Your task to perform on an android device: open app "Expedia: Hotels, Flights & Car" (install if not already installed), go to login, and select forgot password Image 0: 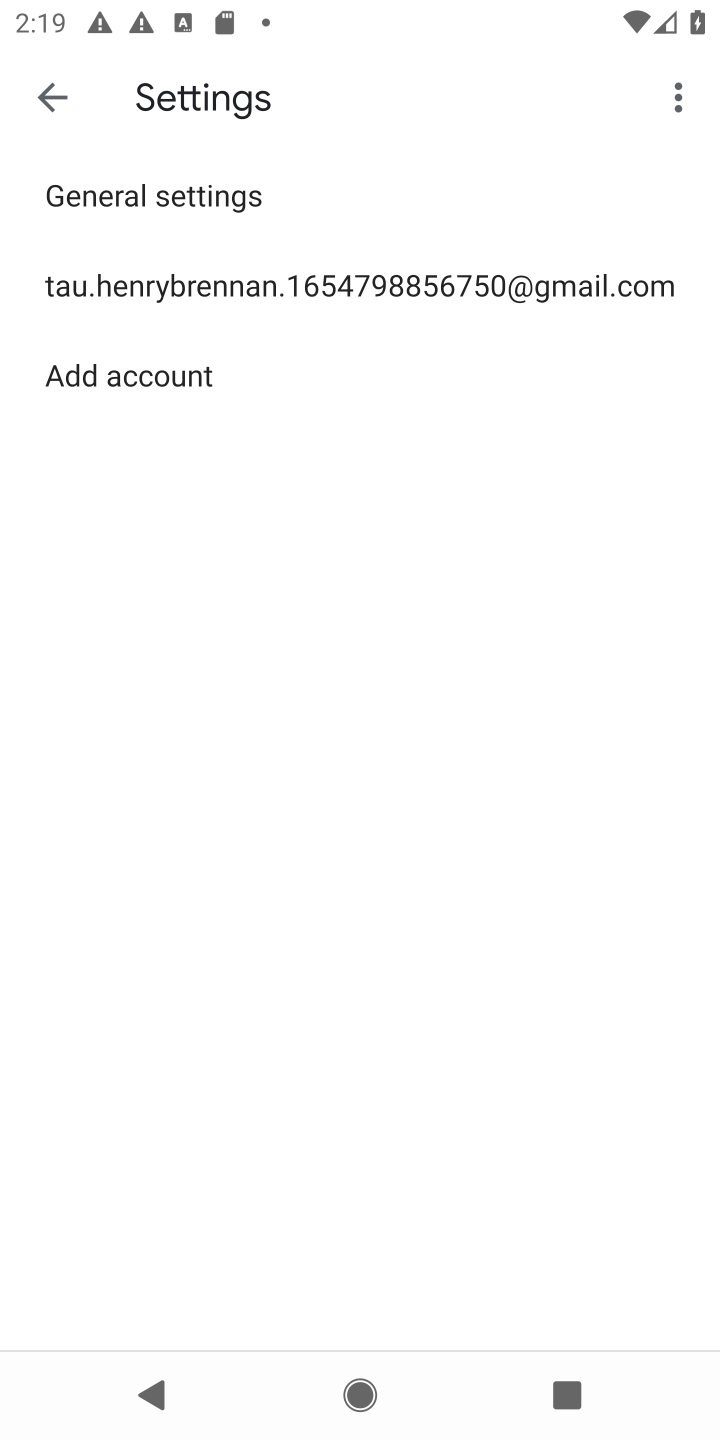
Step 0: press home button
Your task to perform on an android device: open app "Expedia: Hotels, Flights & Car" (install if not already installed), go to login, and select forgot password Image 1: 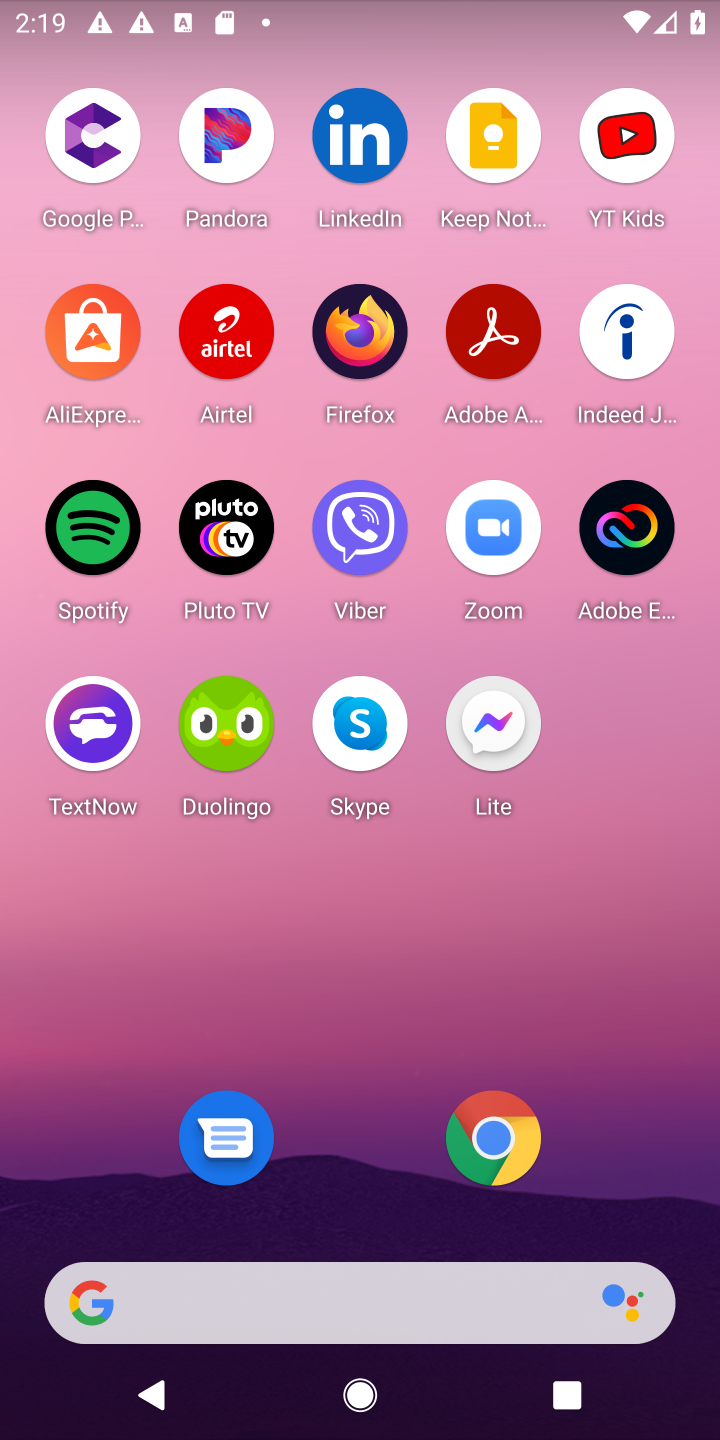
Step 1: press home button
Your task to perform on an android device: open app "Expedia: Hotels, Flights & Car" (install if not already installed), go to login, and select forgot password Image 2: 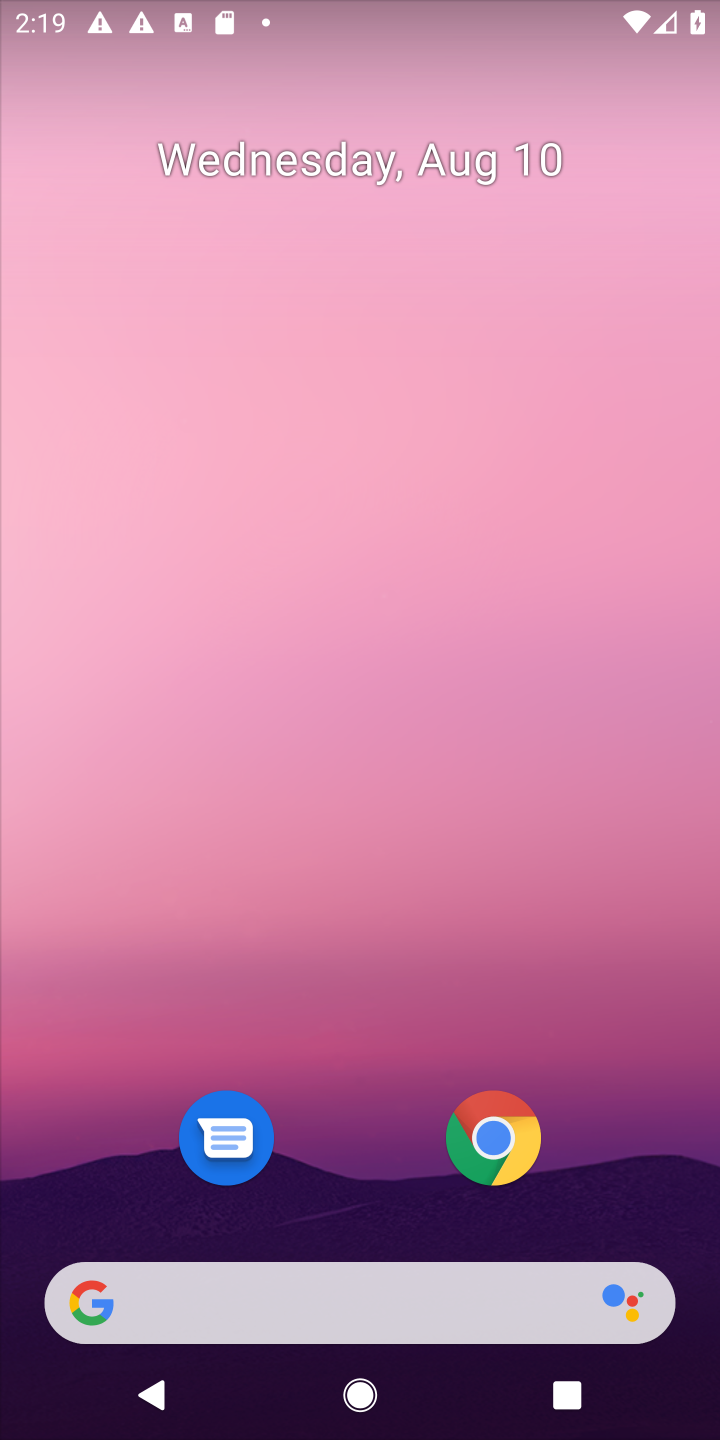
Step 2: drag from (617, 953) to (636, 56)
Your task to perform on an android device: open app "Expedia: Hotels, Flights & Car" (install if not already installed), go to login, and select forgot password Image 3: 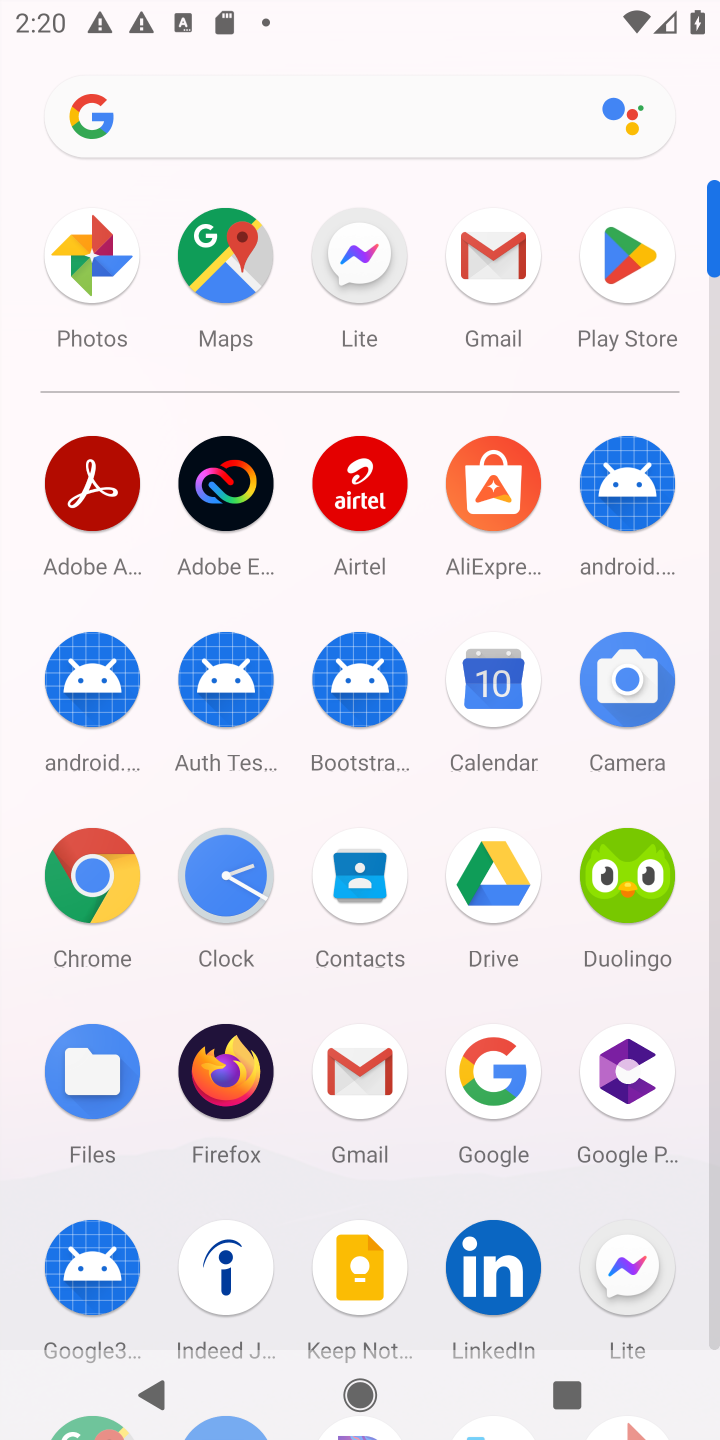
Step 3: click (620, 248)
Your task to perform on an android device: open app "Expedia: Hotels, Flights & Car" (install if not already installed), go to login, and select forgot password Image 4: 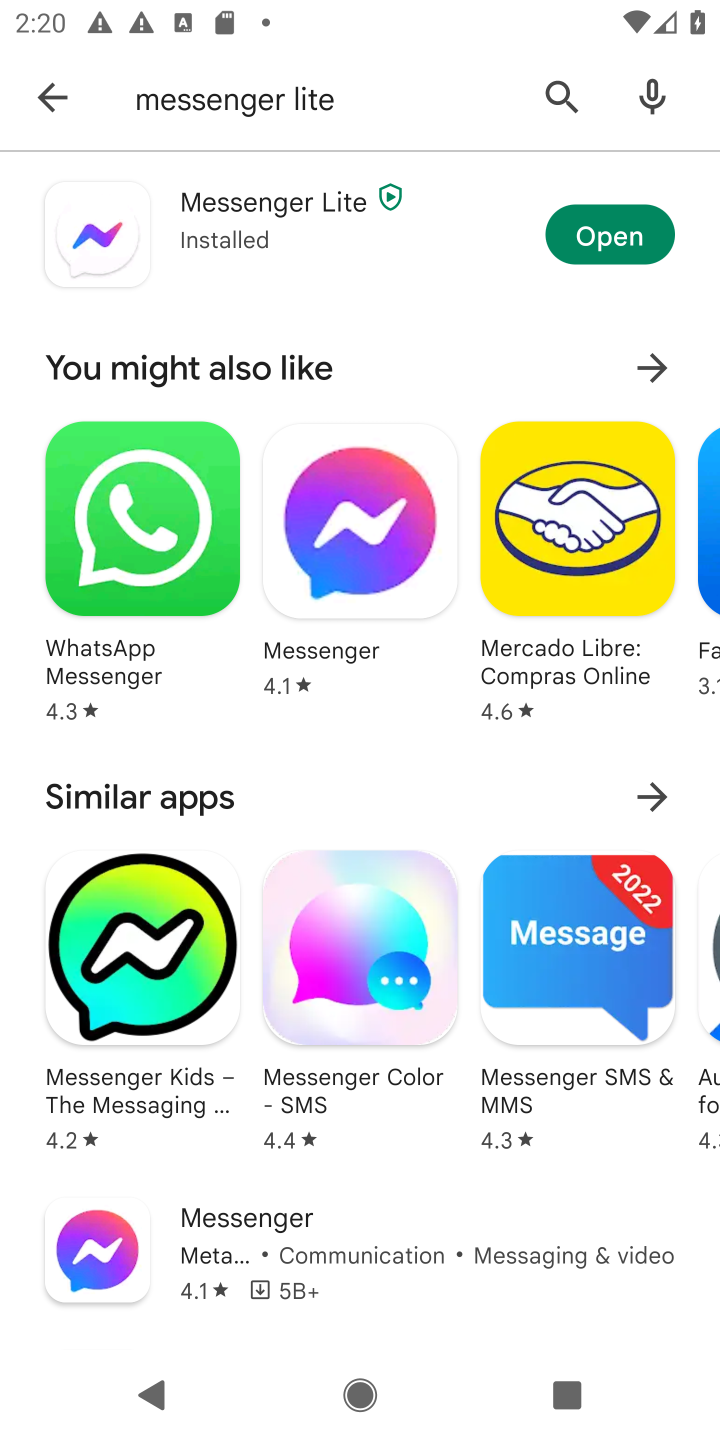
Step 4: click (564, 98)
Your task to perform on an android device: open app "Expedia: Hotels, Flights & Car" (install if not already installed), go to login, and select forgot password Image 5: 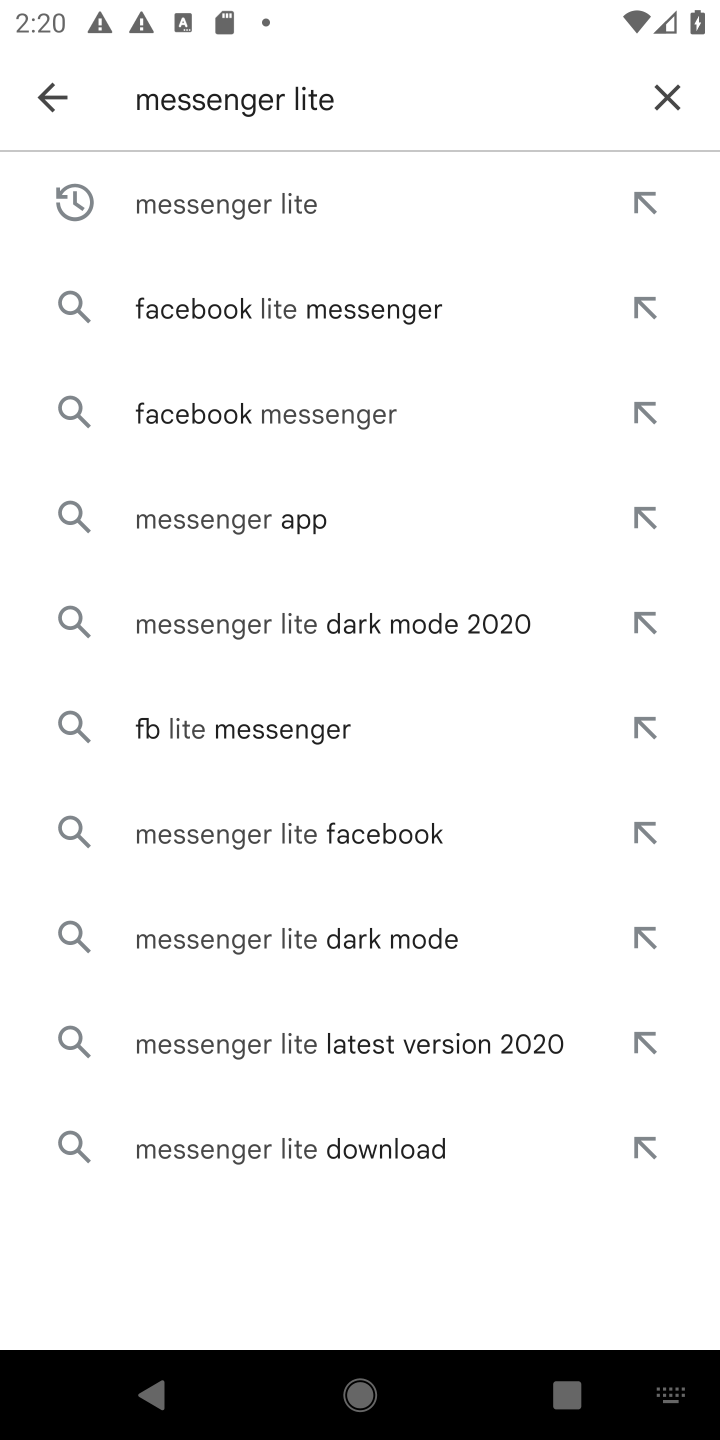
Step 5: click (679, 98)
Your task to perform on an android device: open app "Expedia: Hotels, Flights & Car" (install if not already installed), go to login, and select forgot password Image 6: 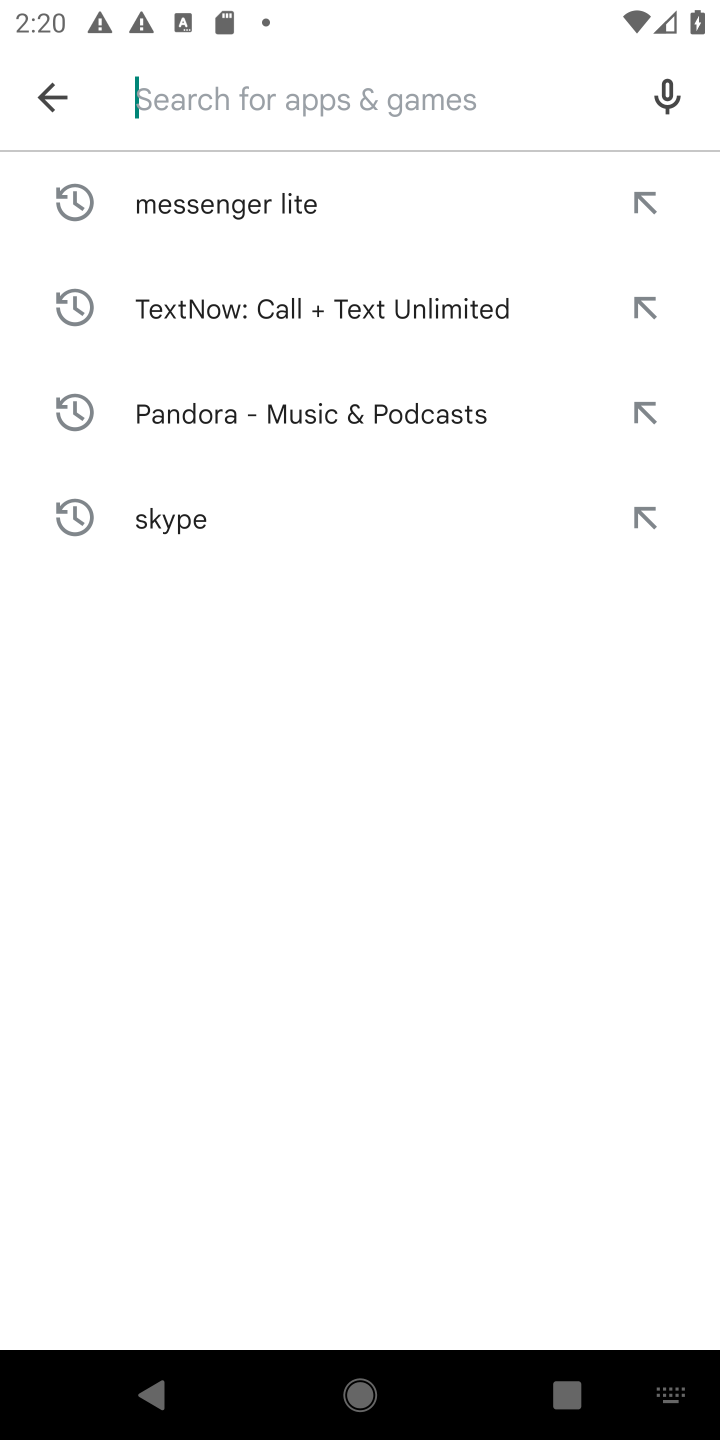
Step 6: press enter
Your task to perform on an android device: open app "Expedia: Hotels, Flights & Car" (install if not already installed), go to login, and select forgot password Image 7: 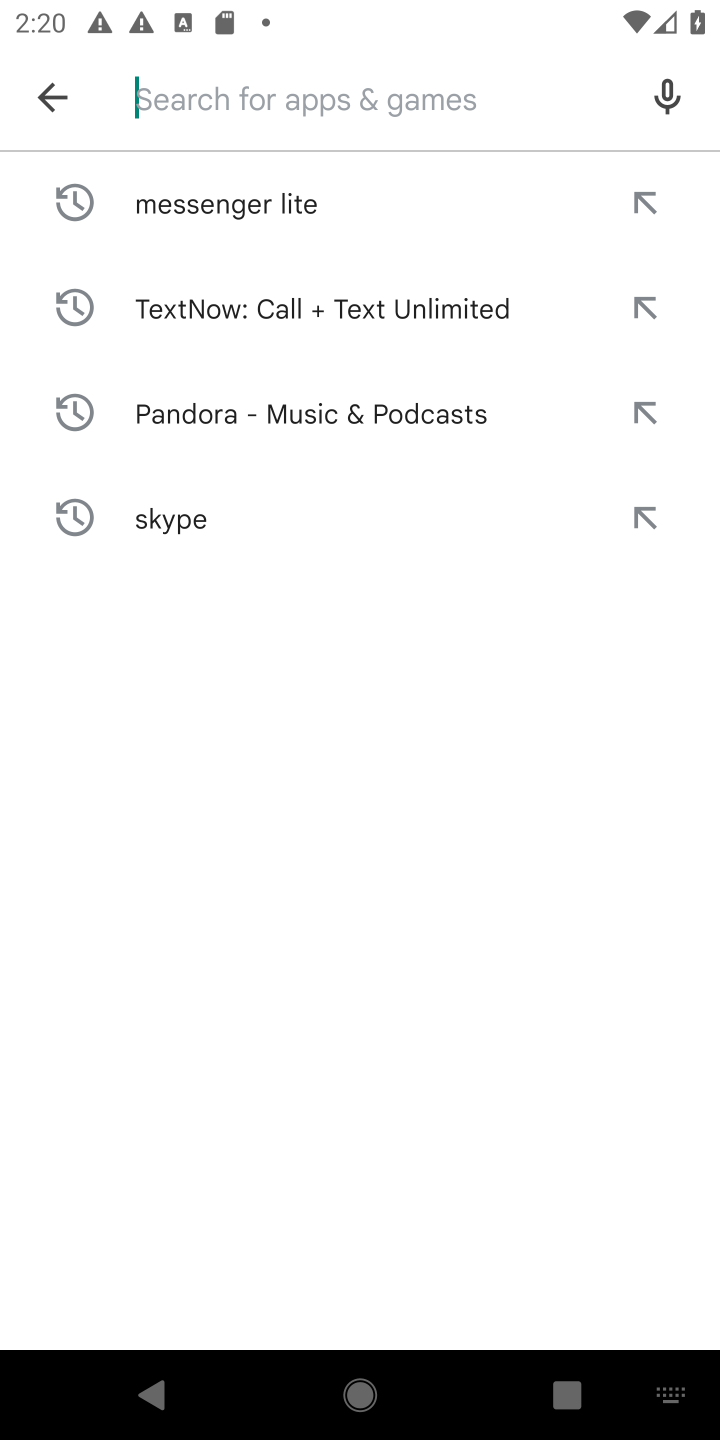
Step 7: type "Expedia: Hotels, Flights & Car"
Your task to perform on an android device: open app "Expedia: Hotels, Flights & Car" (install if not already installed), go to login, and select forgot password Image 8: 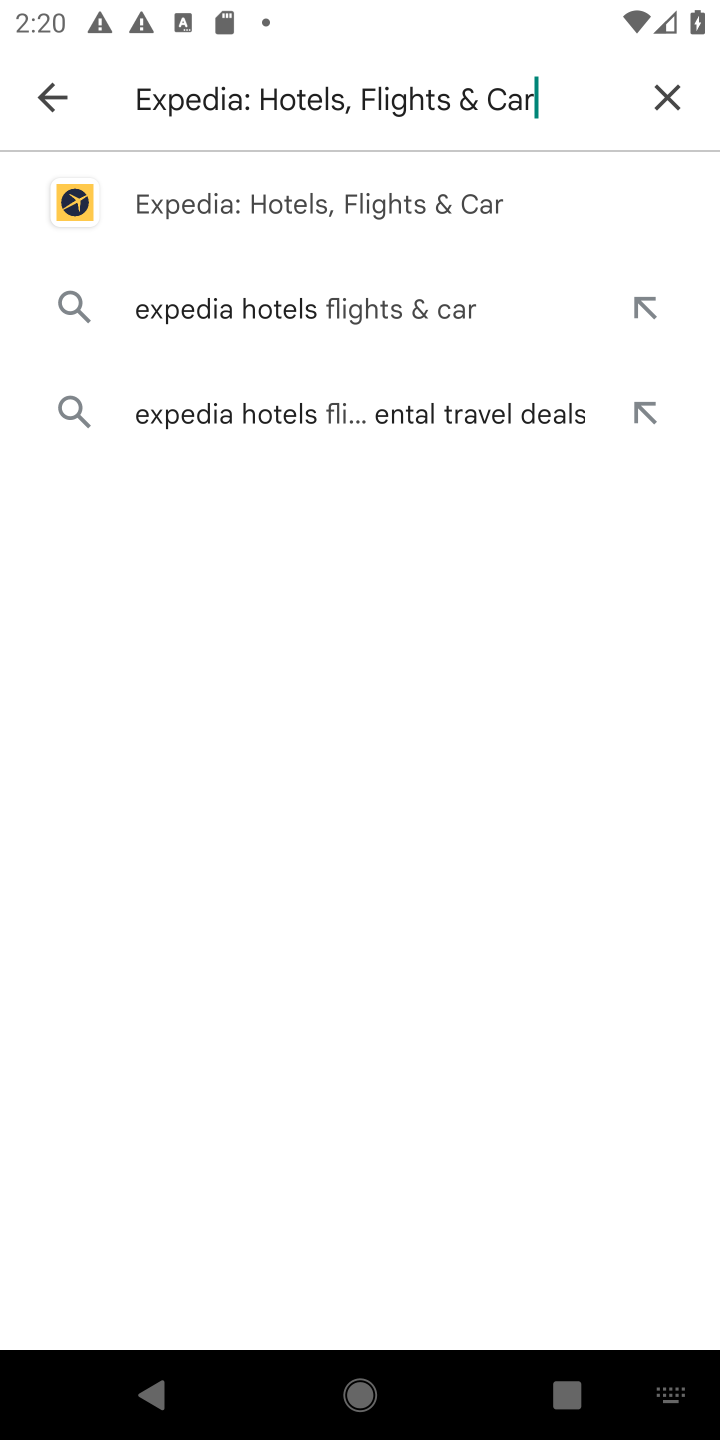
Step 8: click (426, 207)
Your task to perform on an android device: open app "Expedia: Hotels, Flights & Car" (install if not already installed), go to login, and select forgot password Image 9: 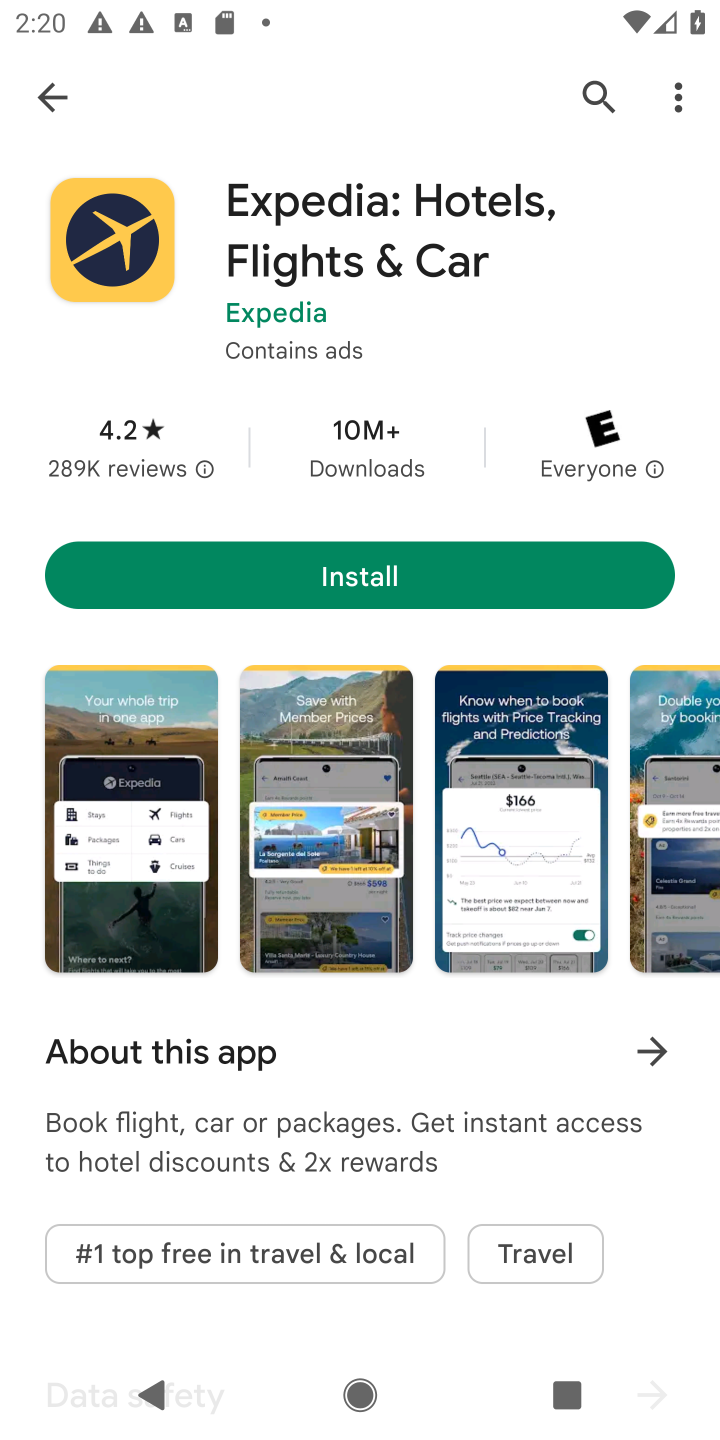
Step 9: click (425, 576)
Your task to perform on an android device: open app "Expedia: Hotels, Flights & Car" (install if not already installed), go to login, and select forgot password Image 10: 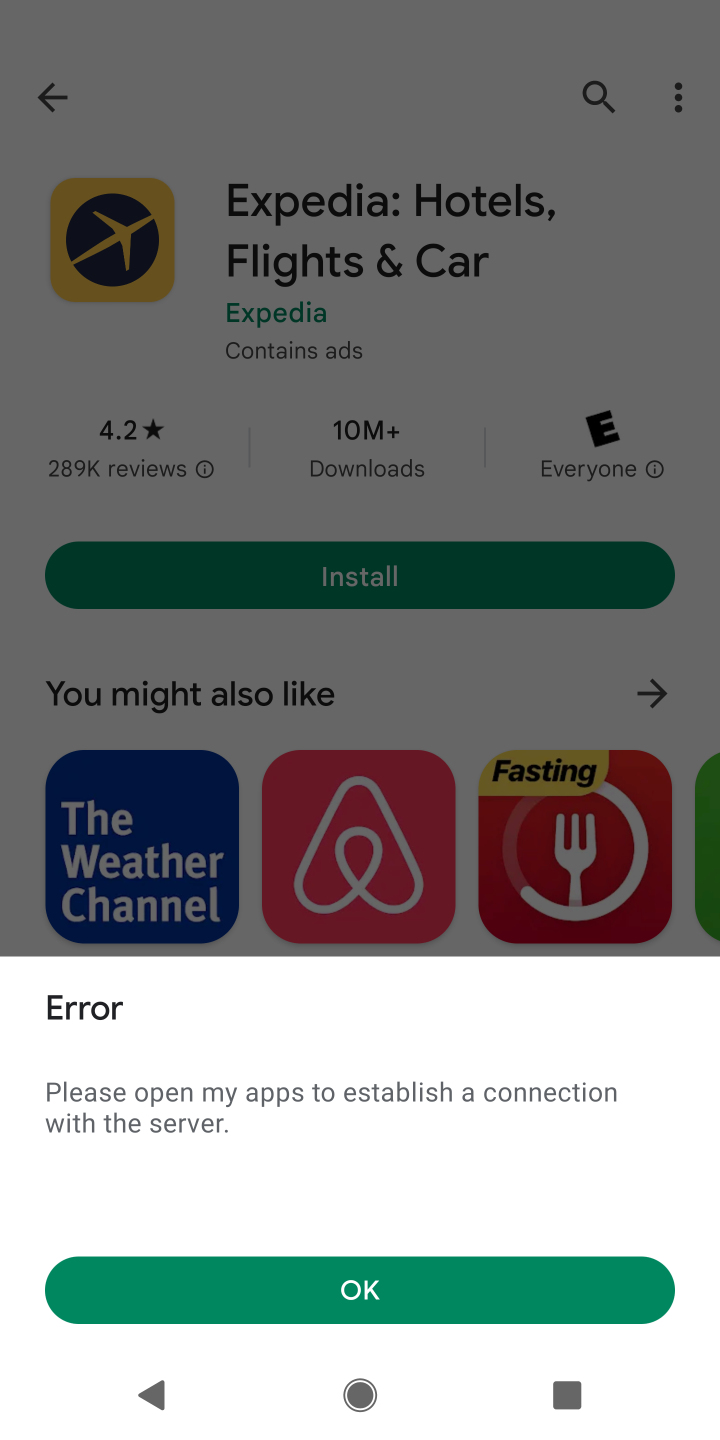
Step 10: task complete